Your task to perform on an android device: open app "Google Keep" Image 0: 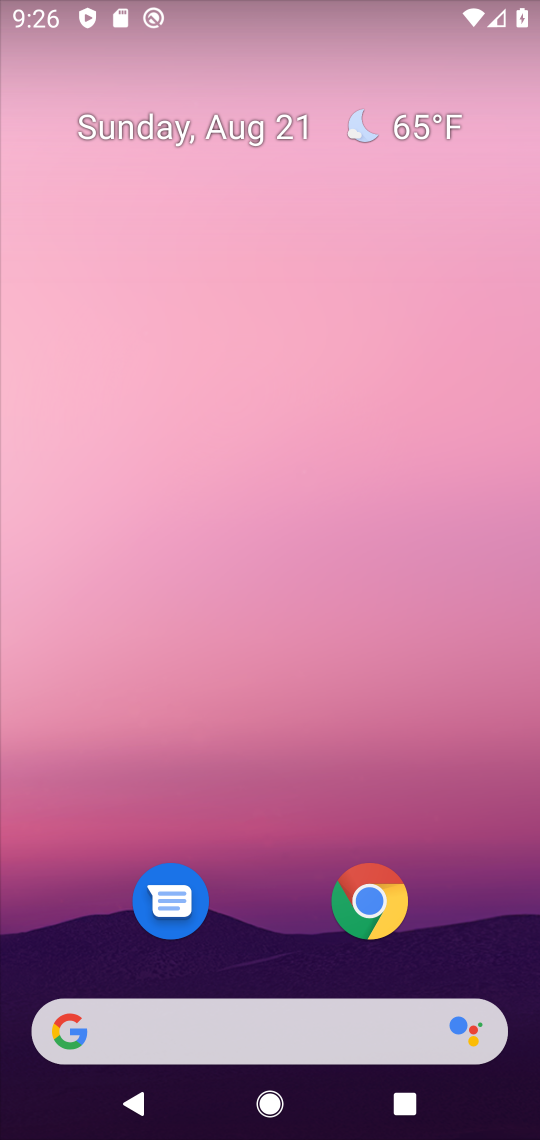
Step 0: drag from (481, 930) to (509, 129)
Your task to perform on an android device: open app "Google Keep" Image 1: 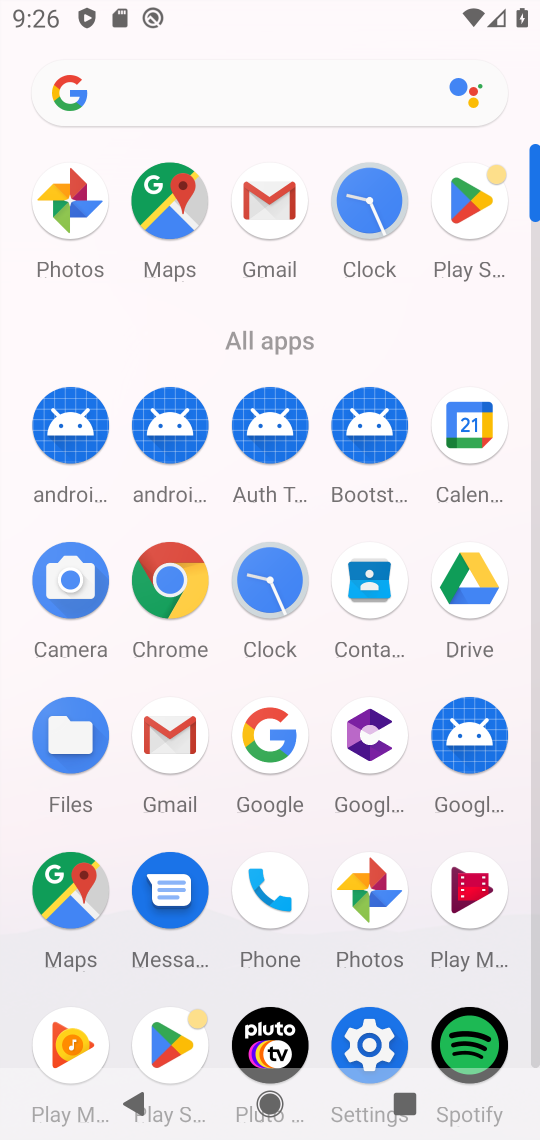
Step 1: click (483, 202)
Your task to perform on an android device: open app "Google Keep" Image 2: 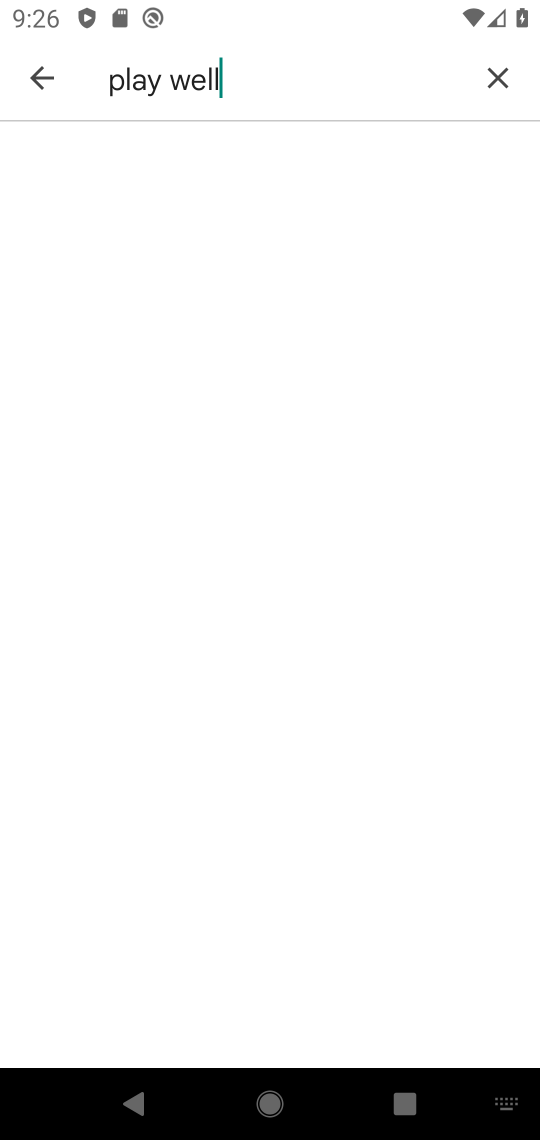
Step 2: press back button
Your task to perform on an android device: open app "Google Keep" Image 3: 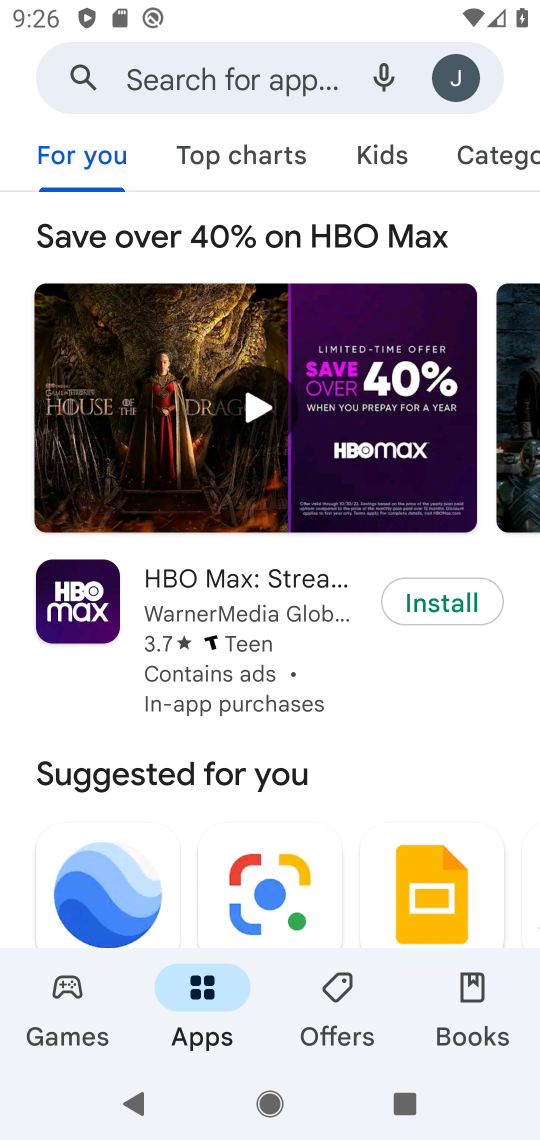
Step 3: click (225, 68)
Your task to perform on an android device: open app "Google Keep" Image 4: 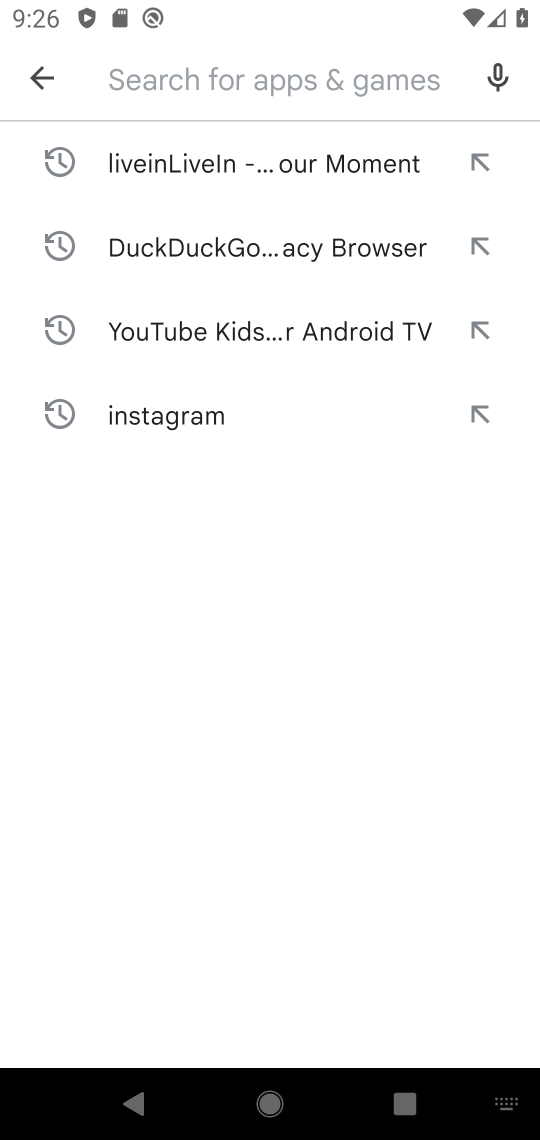
Step 4: type "google keep"
Your task to perform on an android device: open app "Google Keep" Image 5: 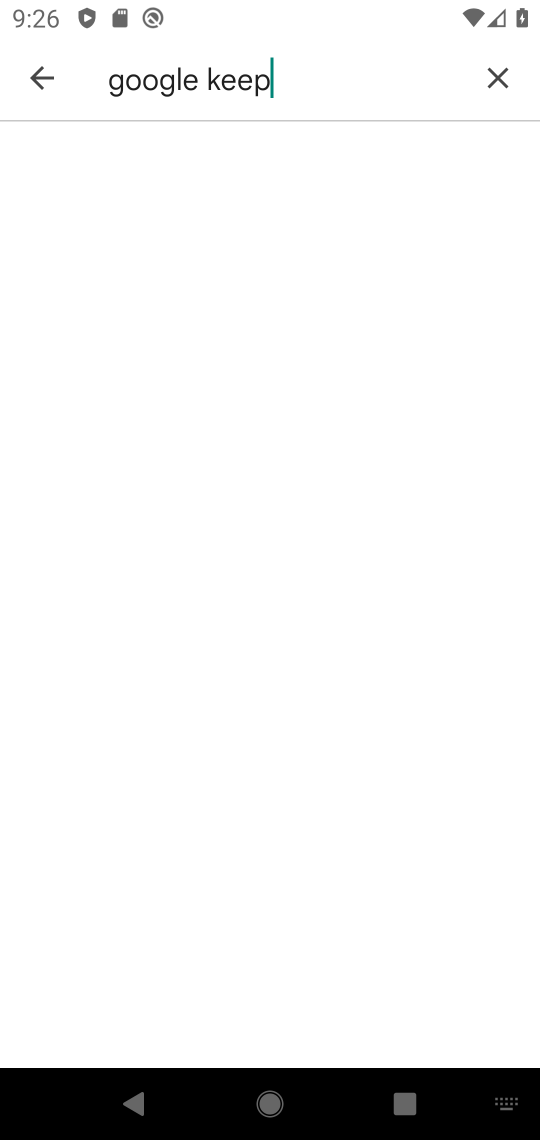
Step 5: task complete